Your task to perform on an android device: turn off javascript in the chrome app Image 0: 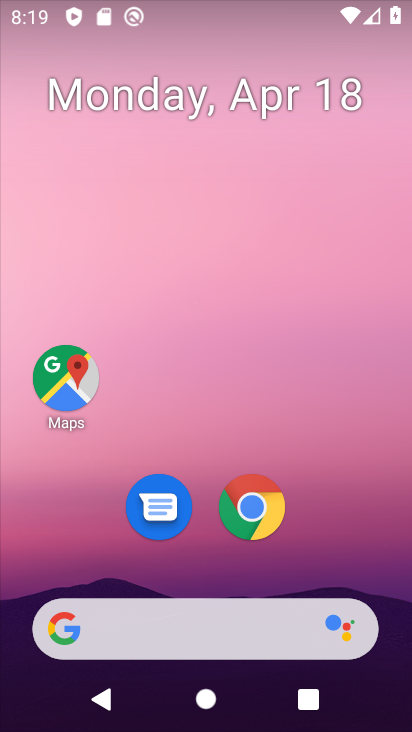
Step 0: drag from (280, 538) to (272, 158)
Your task to perform on an android device: turn off javascript in the chrome app Image 1: 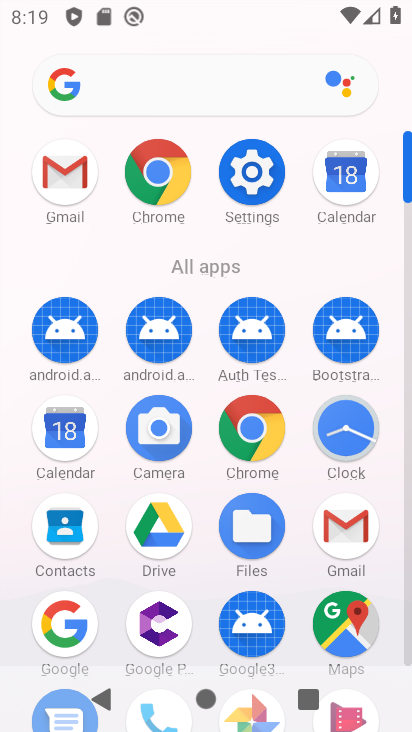
Step 1: click (158, 176)
Your task to perform on an android device: turn off javascript in the chrome app Image 2: 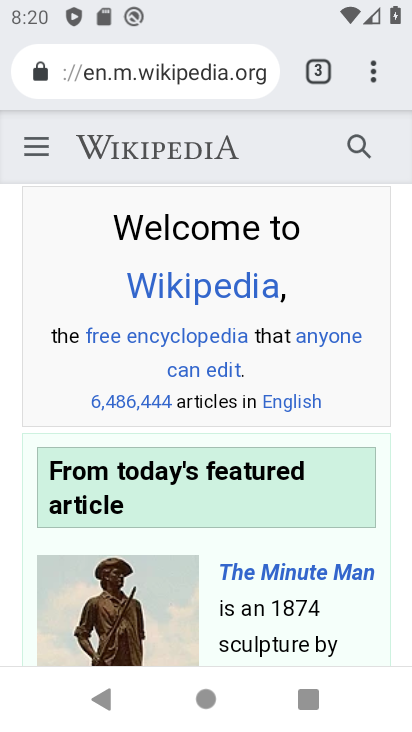
Step 2: click (377, 74)
Your task to perform on an android device: turn off javascript in the chrome app Image 3: 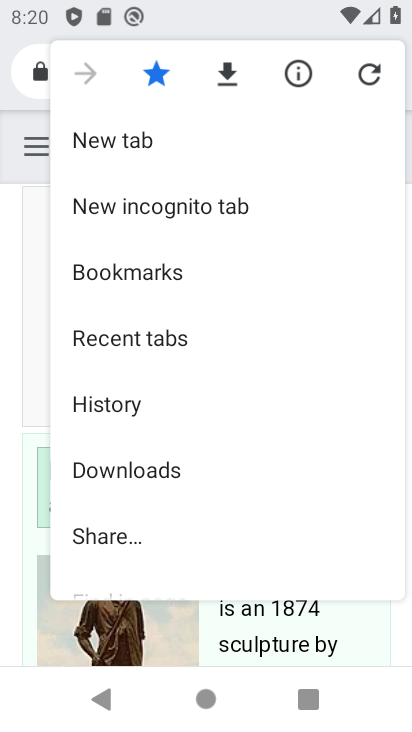
Step 3: drag from (166, 502) to (164, 351)
Your task to perform on an android device: turn off javascript in the chrome app Image 4: 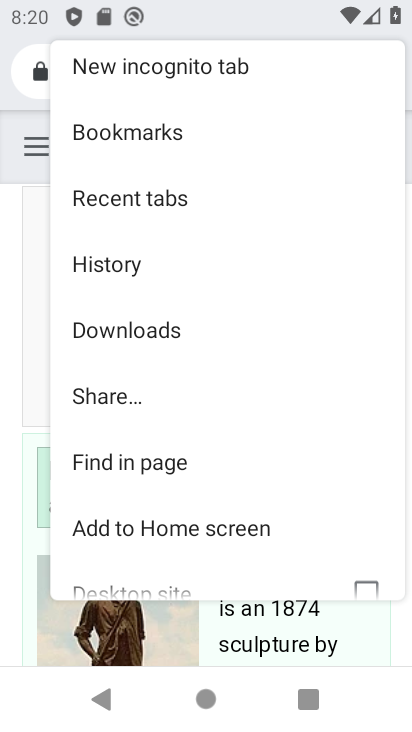
Step 4: drag from (166, 493) to (158, 342)
Your task to perform on an android device: turn off javascript in the chrome app Image 5: 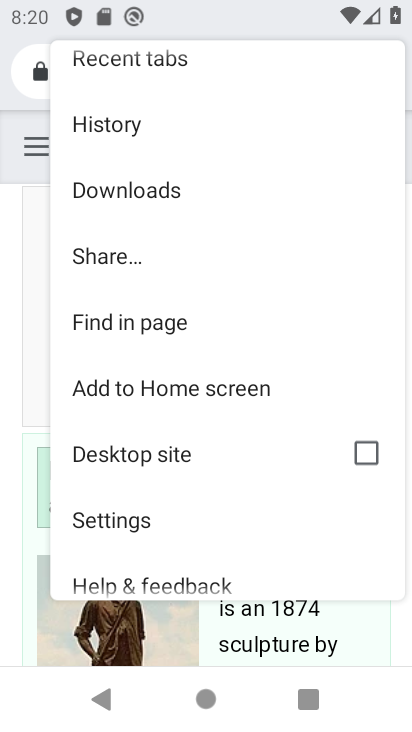
Step 5: click (158, 514)
Your task to perform on an android device: turn off javascript in the chrome app Image 6: 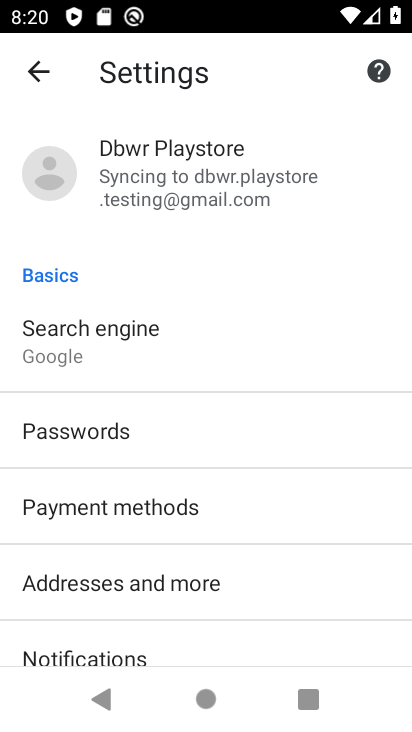
Step 6: drag from (200, 508) to (228, 181)
Your task to perform on an android device: turn off javascript in the chrome app Image 7: 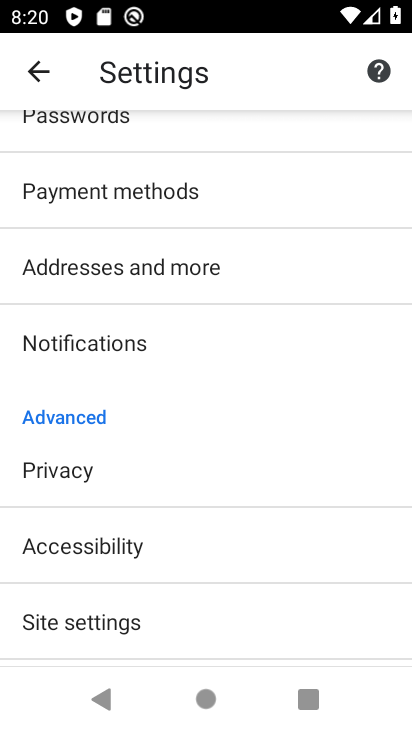
Step 7: drag from (254, 581) to (242, 343)
Your task to perform on an android device: turn off javascript in the chrome app Image 8: 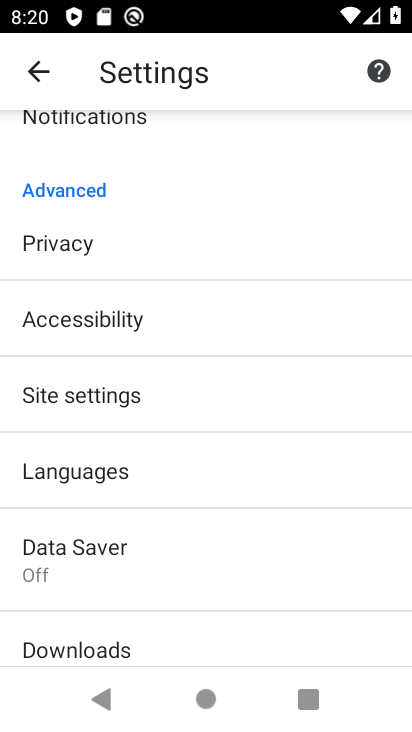
Step 8: click (139, 402)
Your task to perform on an android device: turn off javascript in the chrome app Image 9: 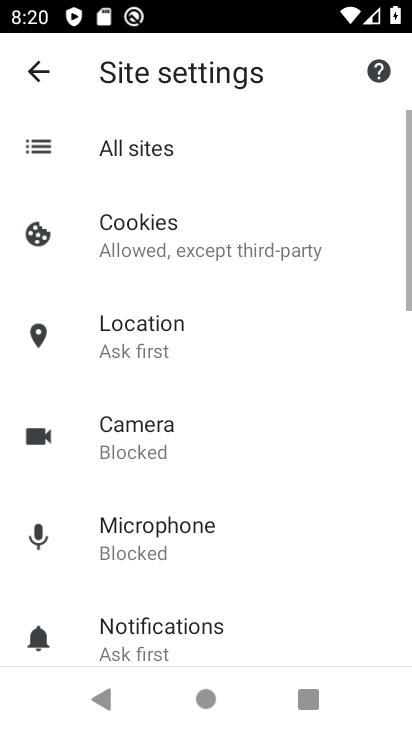
Step 9: drag from (244, 578) to (254, 151)
Your task to perform on an android device: turn off javascript in the chrome app Image 10: 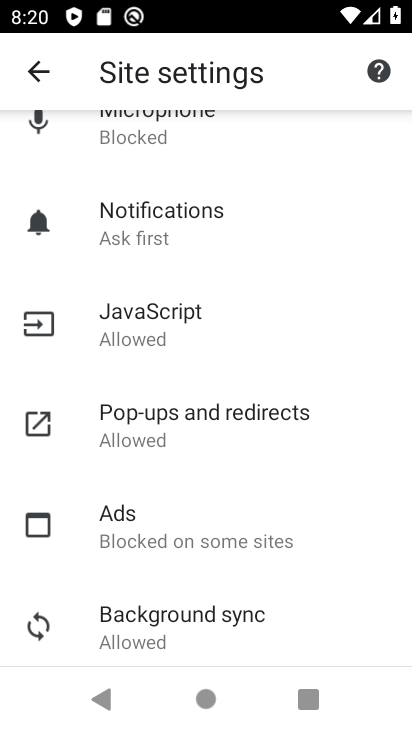
Step 10: click (158, 321)
Your task to perform on an android device: turn off javascript in the chrome app Image 11: 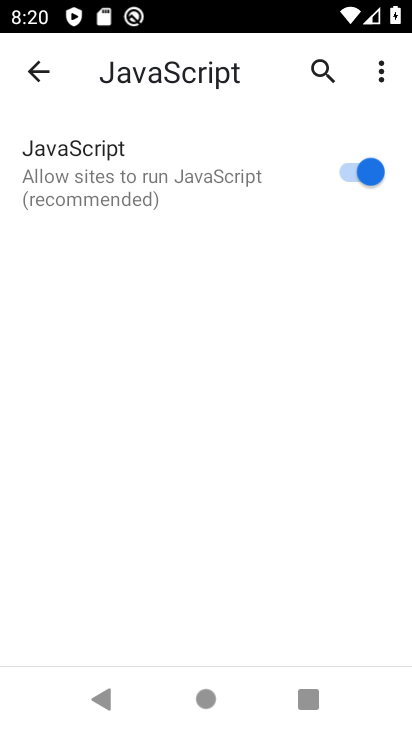
Step 11: click (346, 170)
Your task to perform on an android device: turn off javascript in the chrome app Image 12: 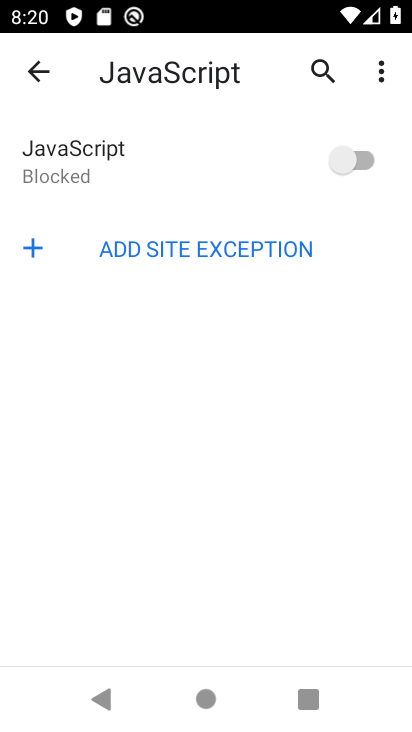
Step 12: task complete